Your task to perform on an android device: turn pop-ups off in chrome Image 0: 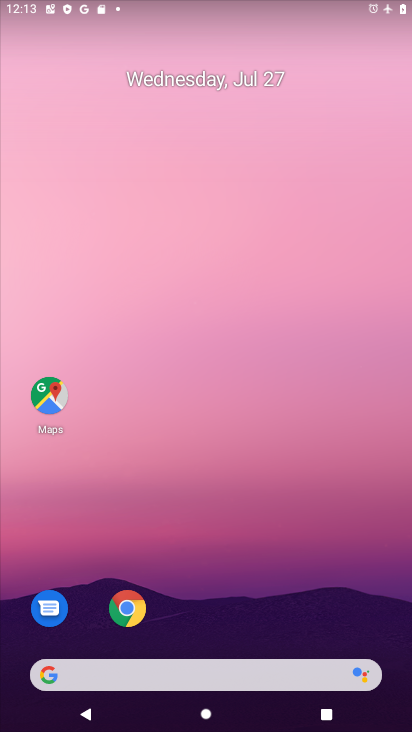
Step 0: click (128, 607)
Your task to perform on an android device: turn pop-ups off in chrome Image 1: 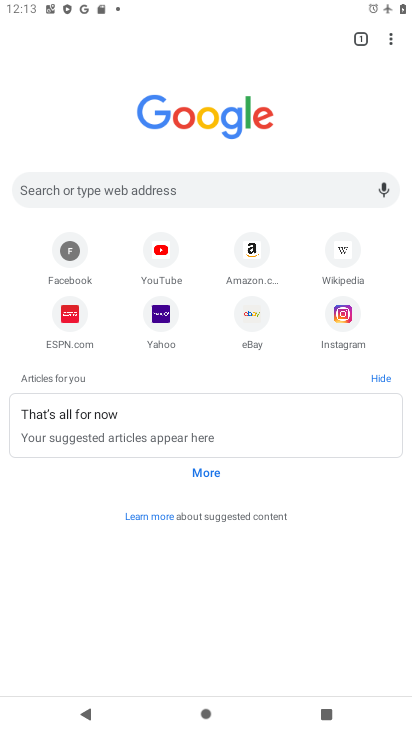
Step 1: click (389, 38)
Your task to perform on an android device: turn pop-ups off in chrome Image 2: 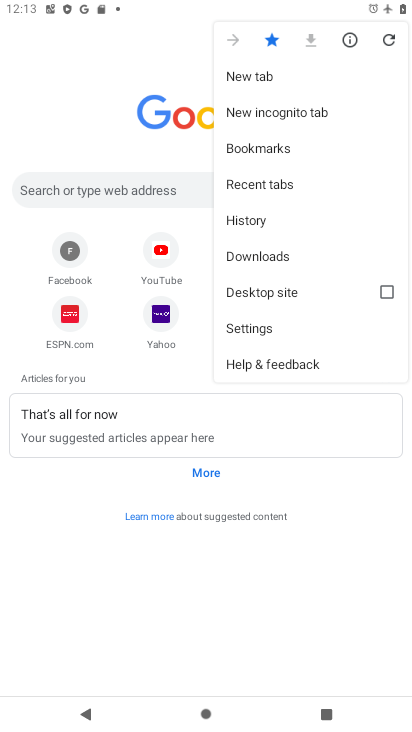
Step 2: click (263, 324)
Your task to perform on an android device: turn pop-ups off in chrome Image 3: 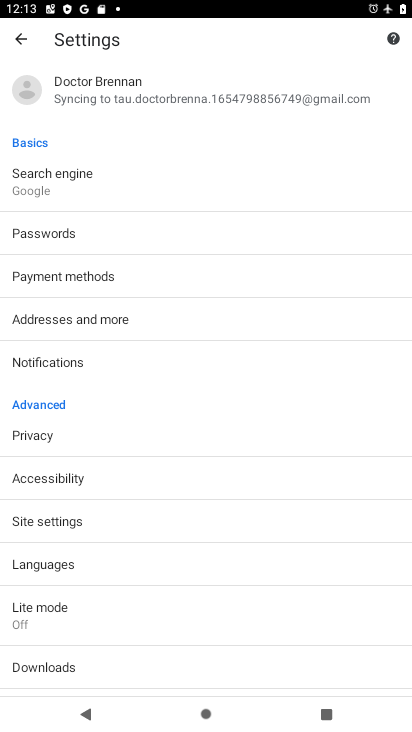
Step 3: drag from (91, 546) to (132, 445)
Your task to perform on an android device: turn pop-ups off in chrome Image 4: 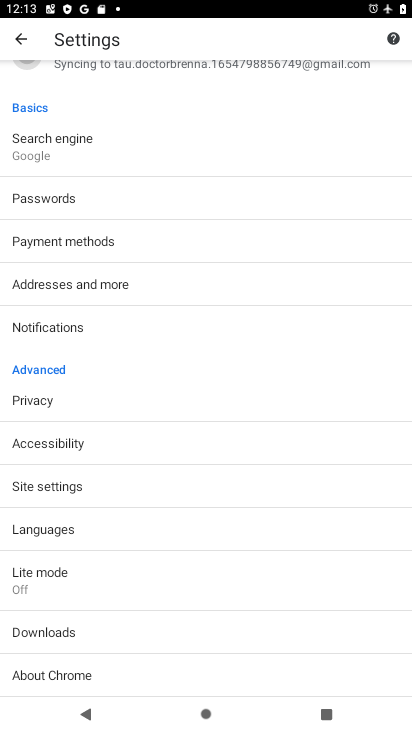
Step 4: click (75, 487)
Your task to perform on an android device: turn pop-ups off in chrome Image 5: 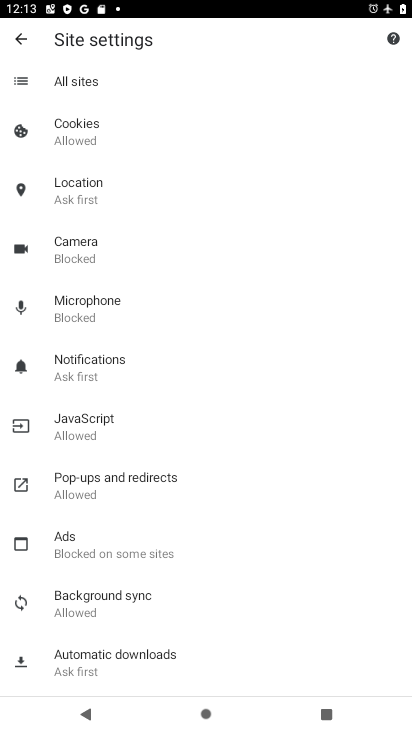
Step 5: click (128, 477)
Your task to perform on an android device: turn pop-ups off in chrome Image 6: 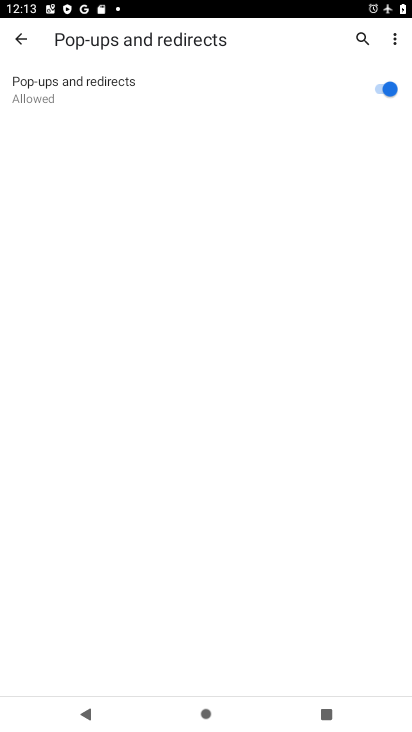
Step 6: click (383, 88)
Your task to perform on an android device: turn pop-ups off in chrome Image 7: 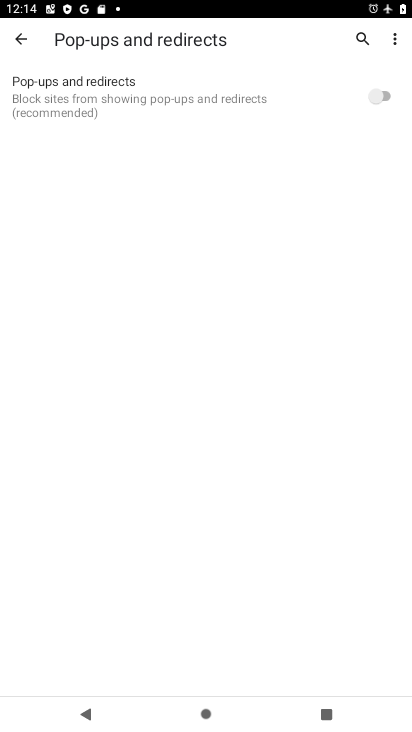
Step 7: task complete